Your task to perform on an android device: Show me productivity apps on the Play Store Image 0: 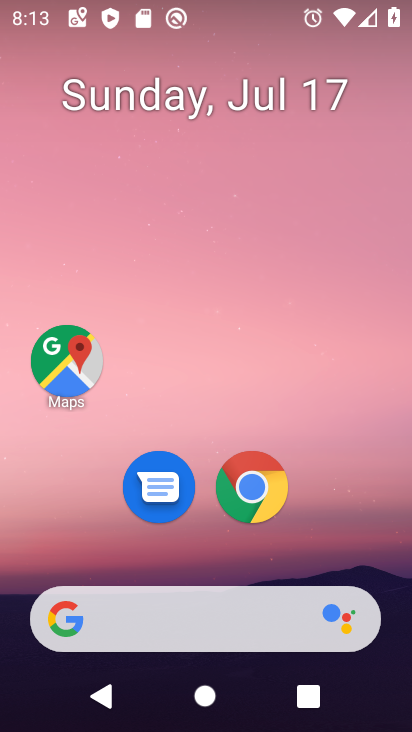
Step 0: drag from (173, 551) to (236, 12)
Your task to perform on an android device: Show me productivity apps on the Play Store Image 1: 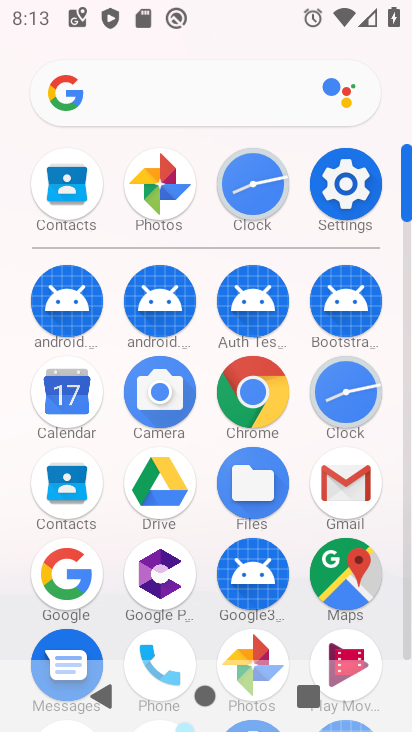
Step 1: drag from (165, 619) to (237, 41)
Your task to perform on an android device: Show me productivity apps on the Play Store Image 2: 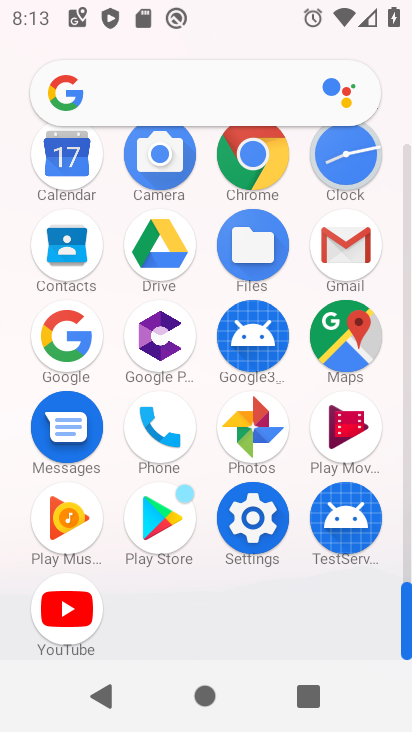
Step 2: click (156, 509)
Your task to perform on an android device: Show me productivity apps on the Play Store Image 3: 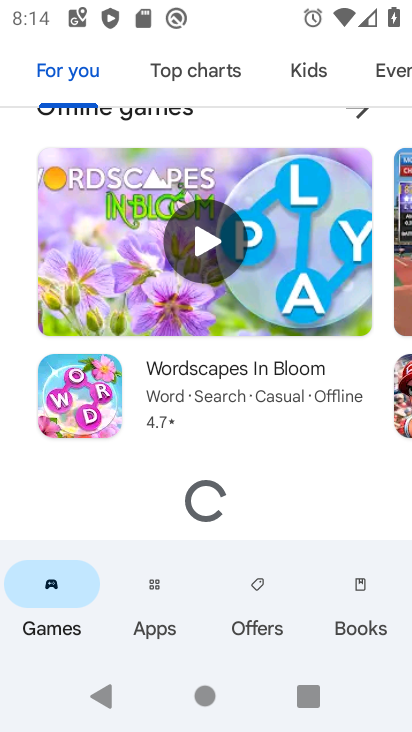
Step 3: click (153, 614)
Your task to perform on an android device: Show me productivity apps on the Play Store Image 4: 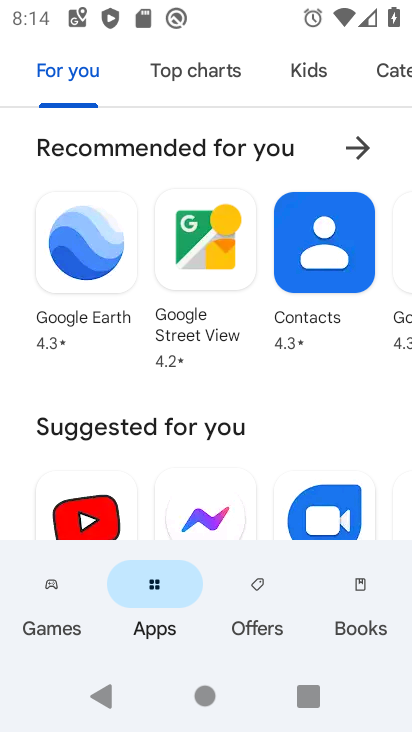
Step 4: drag from (143, 450) to (220, 5)
Your task to perform on an android device: Show me productivity apps on the Play Store Image 5: 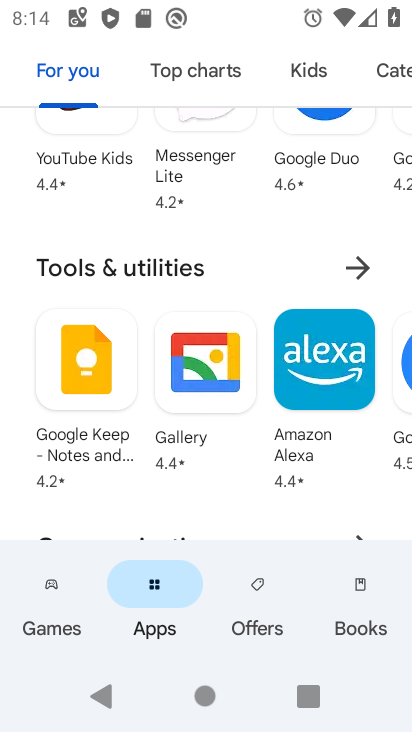
Step 5: drag from (198, 492) to (247, 106)
Your task to perform on an android device: Show me productivity apps on the Play Store Image 6: 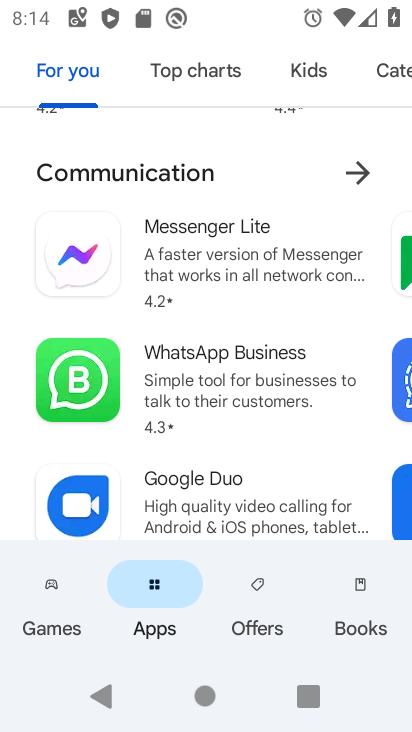
Step 6: drag from (134, 473) to (192, 112)
Your task to perform on an android device: Show me productivity apps on the Play Store Image 7: 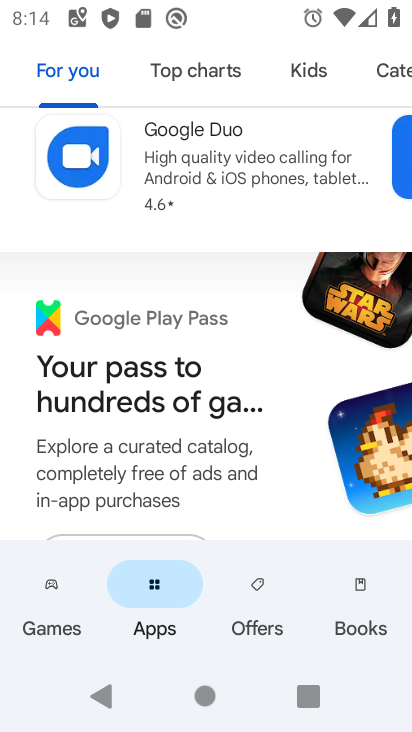
Step 7: drag from (176, 499) to (279, 54)
Your task to perform on an android device: Show me productivity apps on the Play Store Image 8: 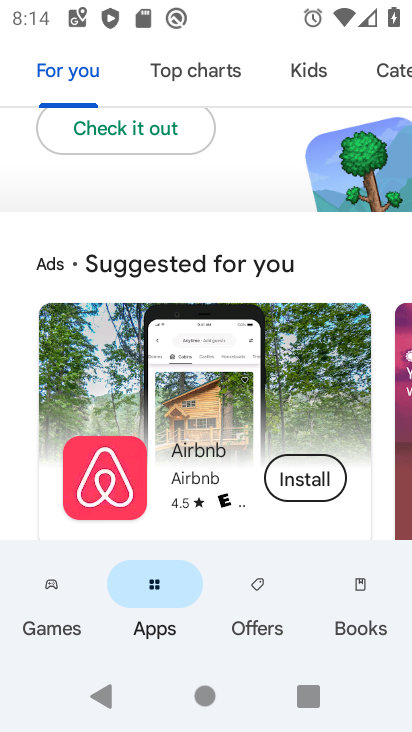
Step 8: drag from (191, 488) to (256, 47)
Your task to perform on an android device: Show me productivity apps on the Play Store Image 9: 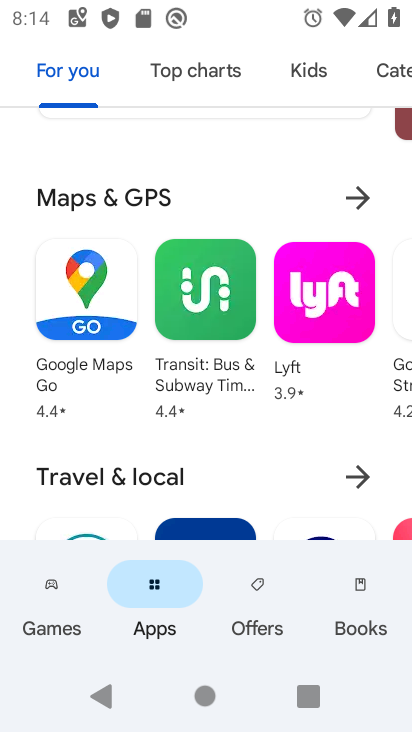
Step 9: drag from (152, 489) to (221, 22)
Your task to perform on an android device: Show me productivity apps on the Play Store Image 10: 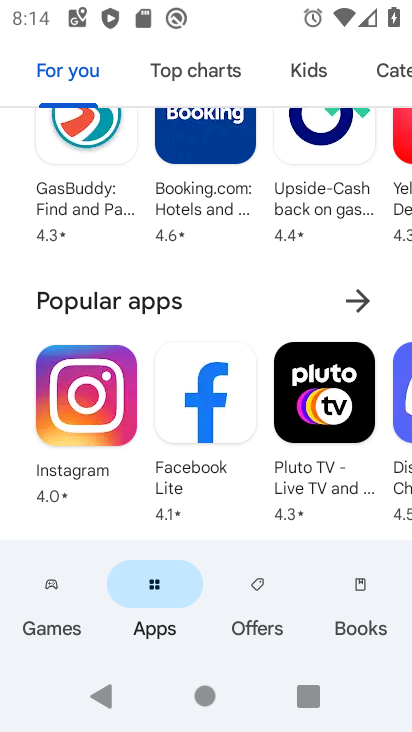
Step 10: drag from (156, 515) to (230, 75)
Your task to perform on an android device: Show me productivity apps on the Play Store Image 11: 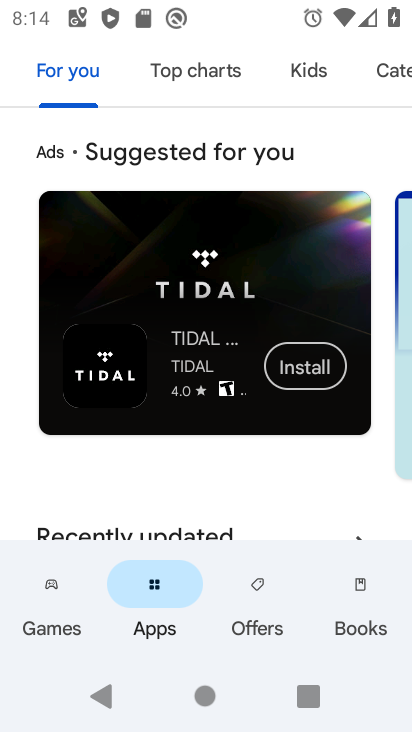
Step 11: drag from (136, 485) to (222, 13)
Your task to perform on an android device: Show me productivity apps on the Play Store Image 12: 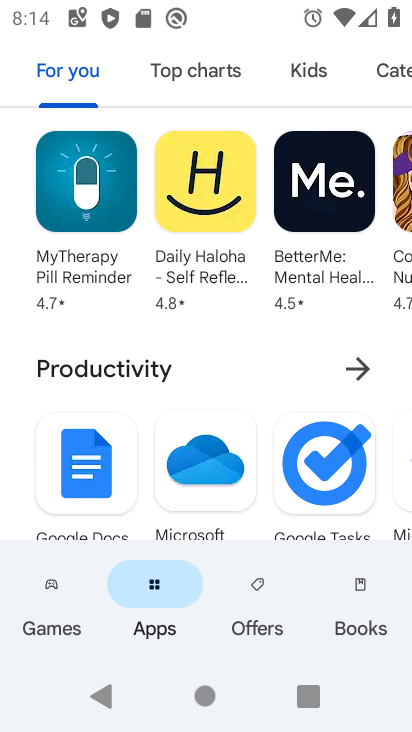
Step 12: click (336, 355)
Your task to perform on an android device: Show me productivity apps on the Play Store Image 13: 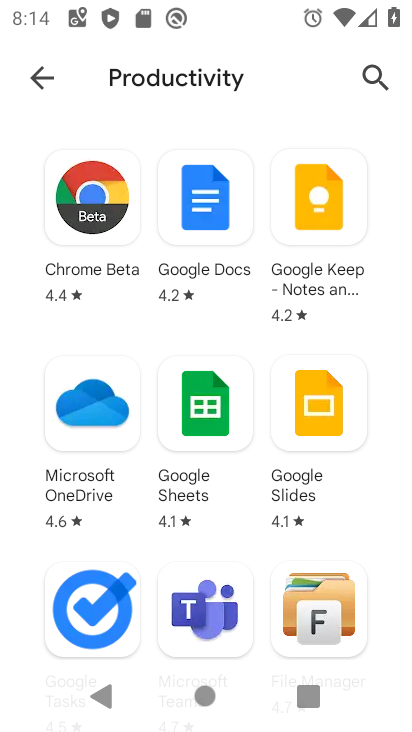
Step 13: task complete